Your task to perform on an android device: What's the weather going to be tomorrow? Image 0: 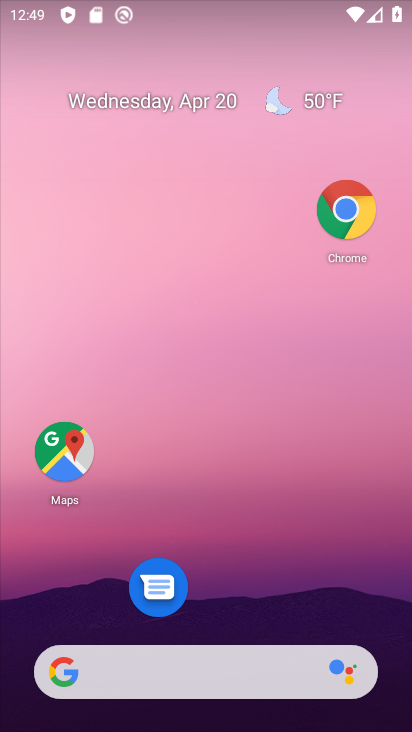
Step 0: click (307, 82)
Your task to perform on an android device: What's the weather going to be tomorrow? Image 1: 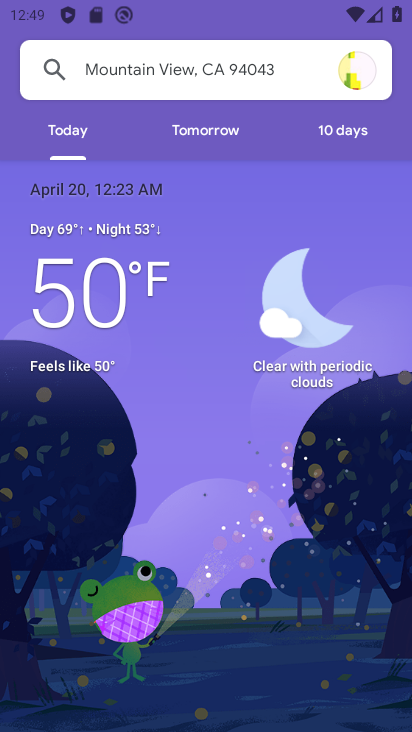
Step 1: task complete